Your task to perform on an android device: When is my next appointment? Image 0: 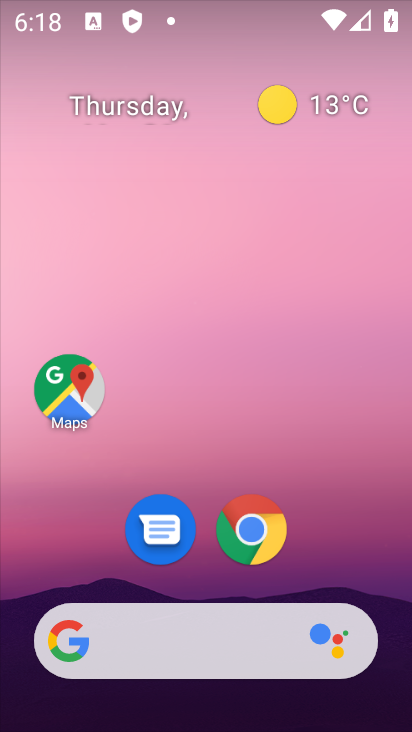
Step 0: drag from (295, 600) to (366, 49)
Your task to perform on an android device: When is my next appointment? Image 1: 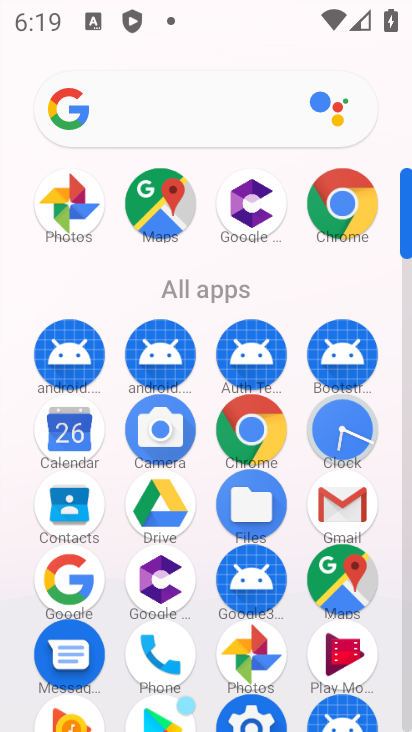
Step 1: click (63, 436)
Your task to perform on an android device: When is my next appointment? Image 2: 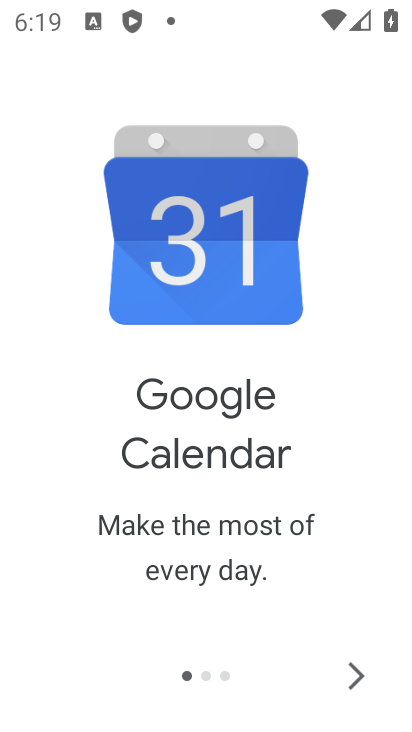
Step 2: click (344, 673)
Your task to perform on an android device: When is my next appointment? Image 3: 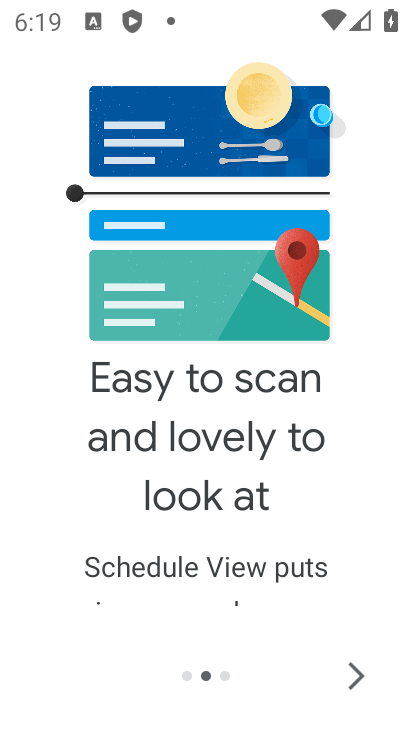
Step 3: click (344, 673)
Your task to perform on an android device: When is my next appointment? Image 4: 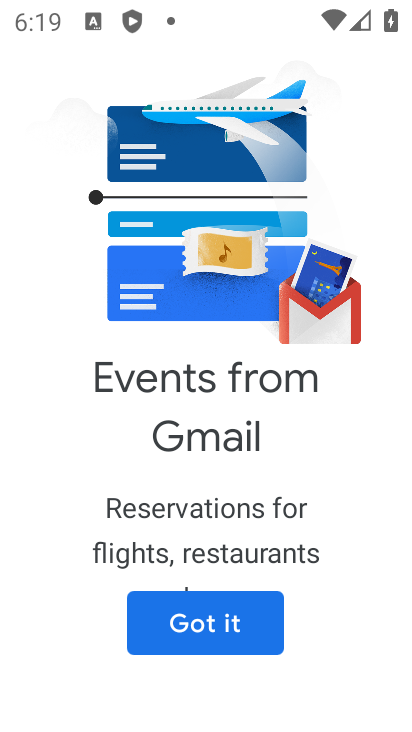
Step 4: click (212, 631)
Your task to perform on an android device: When is my next appointment? Image 5: 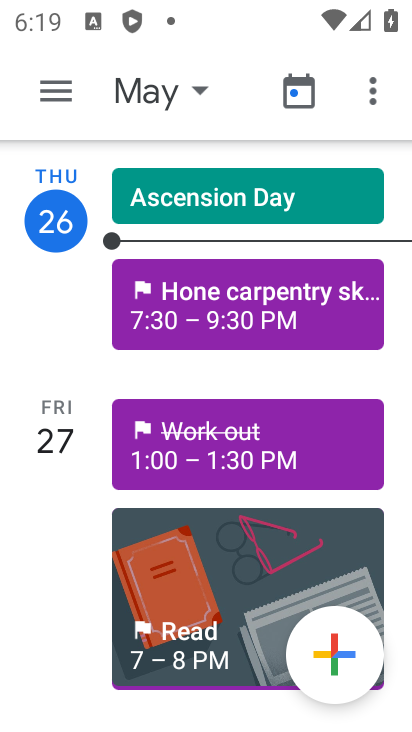
Step 5: click (192, 83)
Your task to perform on an android device: When is my next appointment? Image 6: 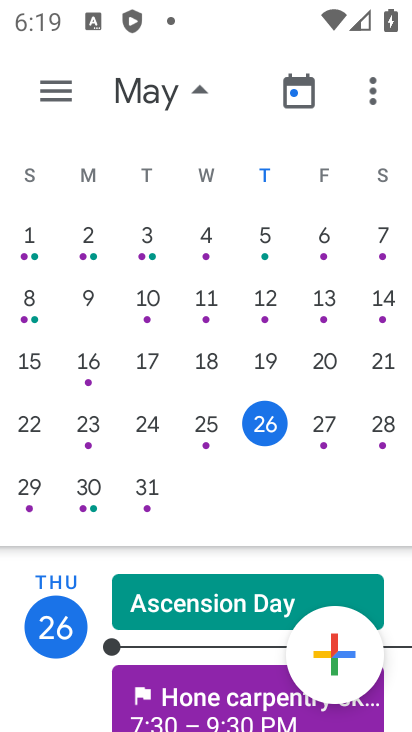
Step 6: click (314, 429)
Your task to perform on an android device: When is my next appointment? Image 7: 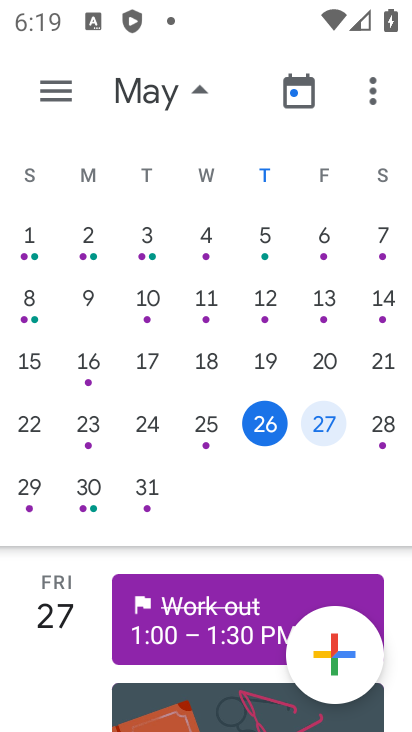
Step 7: task complete